Your task to perform on an android device: turn notification dots off Image 0: 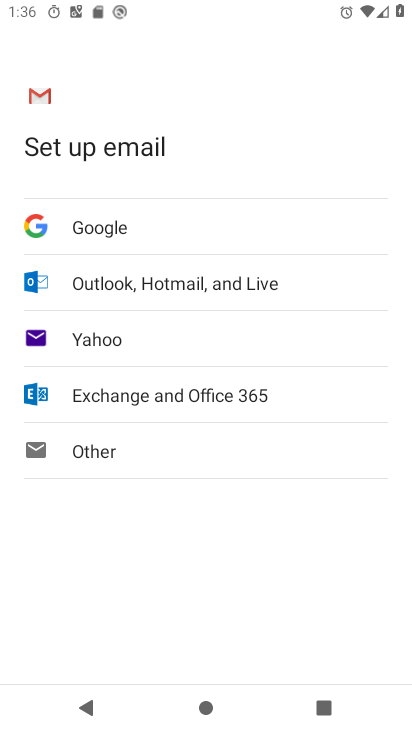
Step 0: press home button
Your task to perform on an android device: turn notification dots off Image 1: 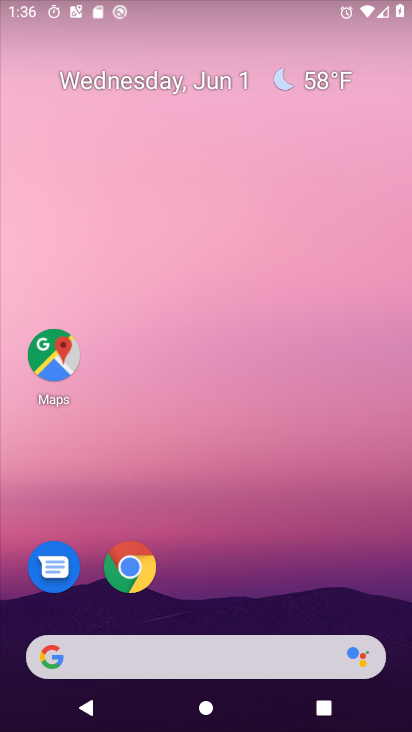
Step 1: drag from (229, 575) to (282, 46)
Your task to perform on an android device: turn notification dots off Image 2: 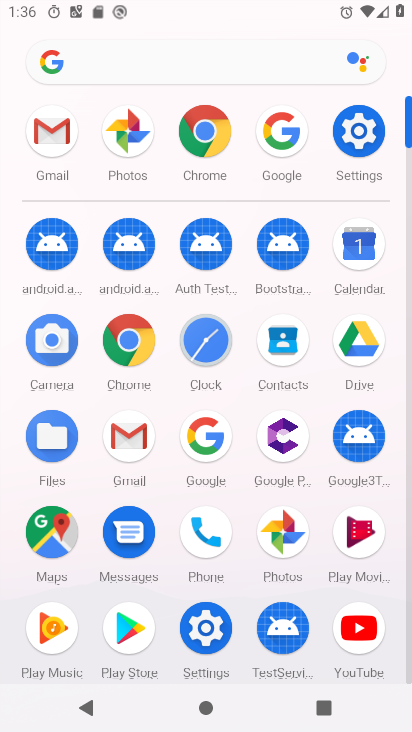
Step 2: click (362, 141)
Your task to perform on an android device: turn notification dots off Image 3: 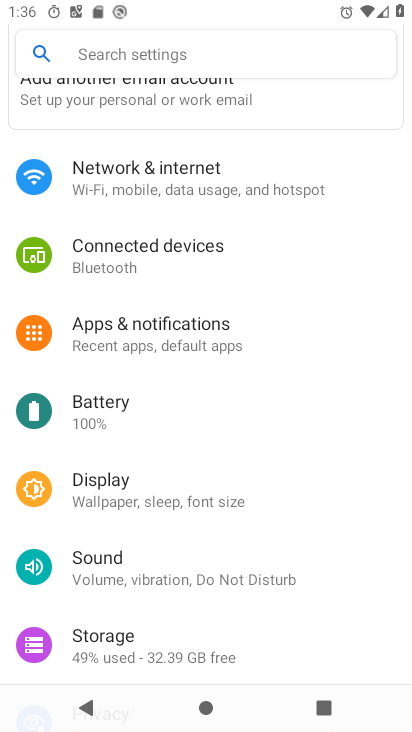
Step 3: click (153, 331)
Your task to perform on an android device: turn notification dots off Image 4: 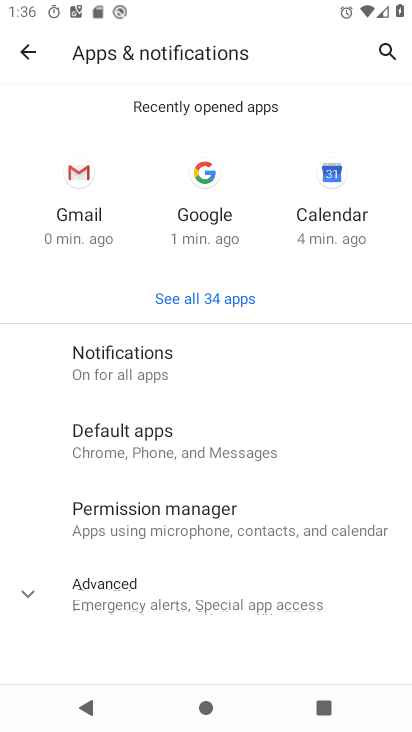
Step 4: click (123, 362)
Your task to perform on an android device: turn notification dots off Image 5: 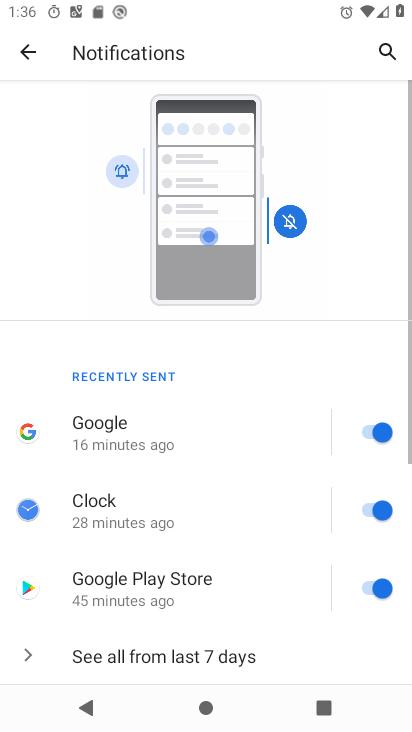
Step 5: drag from (261, 532) to (272, 67)
Your task to perform on an android device: turn notification dots off Image 6: 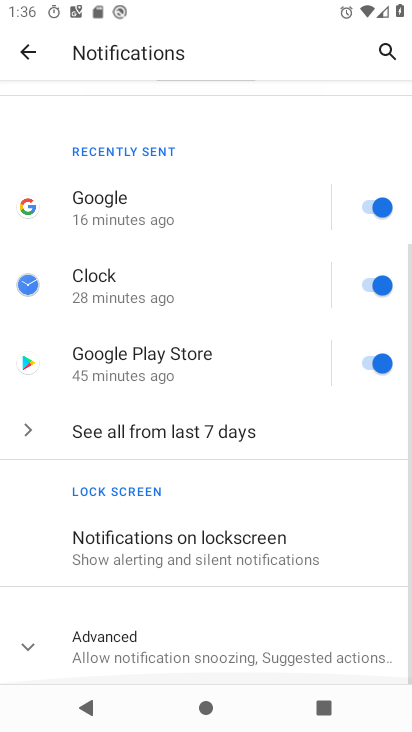
Step 6: click (169, 648)
Your task to perform on an android device: turn notification dots off Image 7: 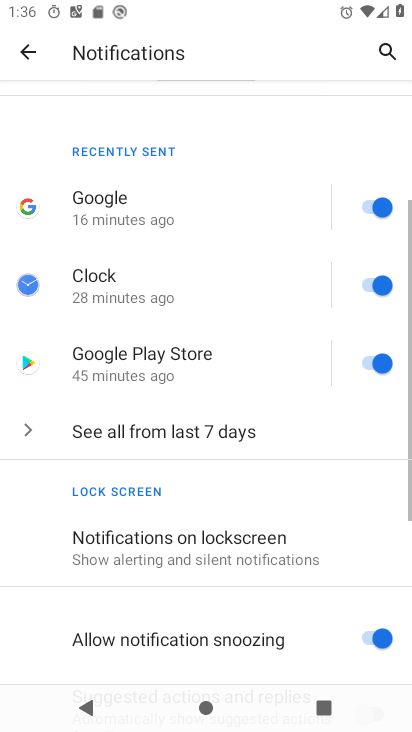
Step 7: task complete